Your task to perform on an android device: Is it going to rain today? Image 0: 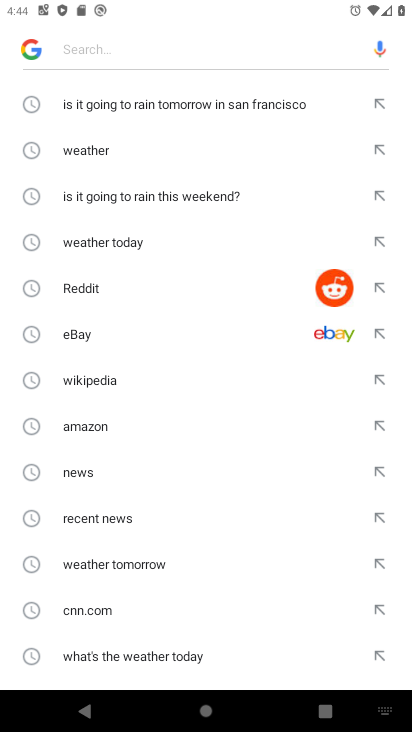
Step 0: press home button
Your task to perform on an android device: Is it going to rain today? Image 1: 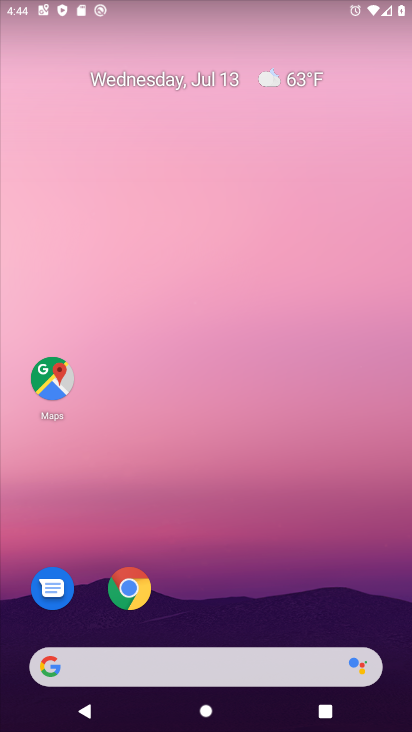
Step 1: drag from (187, 672) to (193, 199)
Your task to perform on an android device: Is it going to rain today? Image 2: 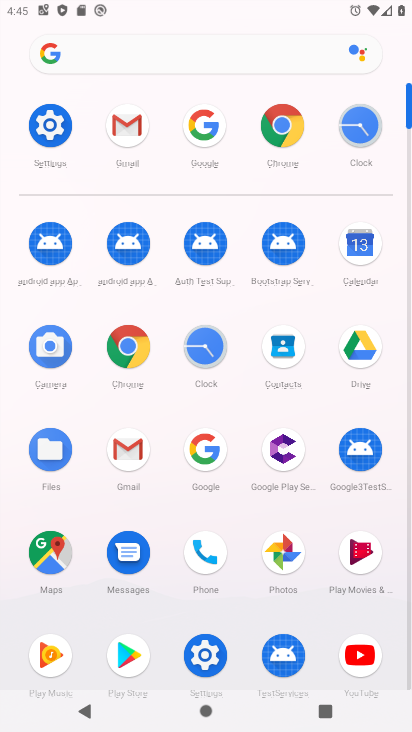
Step 2: click (198, 125)
Your task to perform on an android device: Is it going to rain today? Image 3: 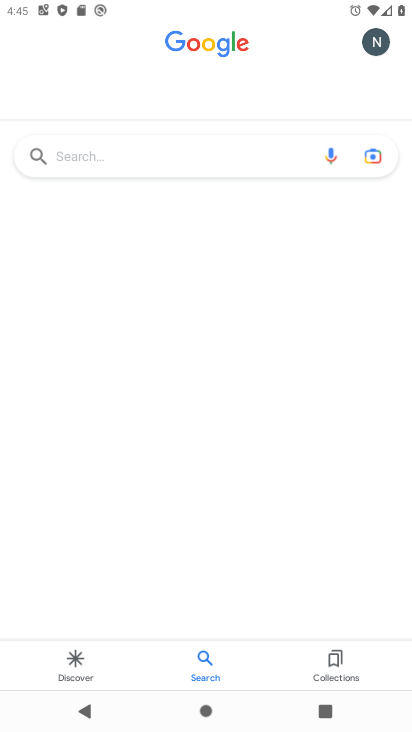
Step 3: click (183, 150)
Your task to perform on an android device: Is it going to rain today? Image 4: 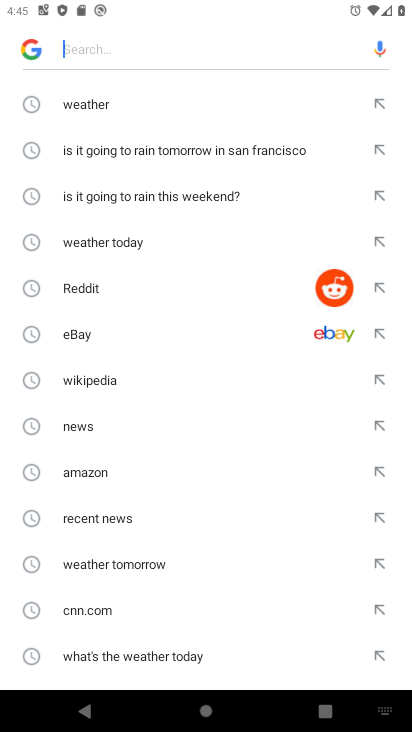
Step 4: type "Is it going to rain today?"
Your task to perform on an android device: Is it going to rain today? Image 5: 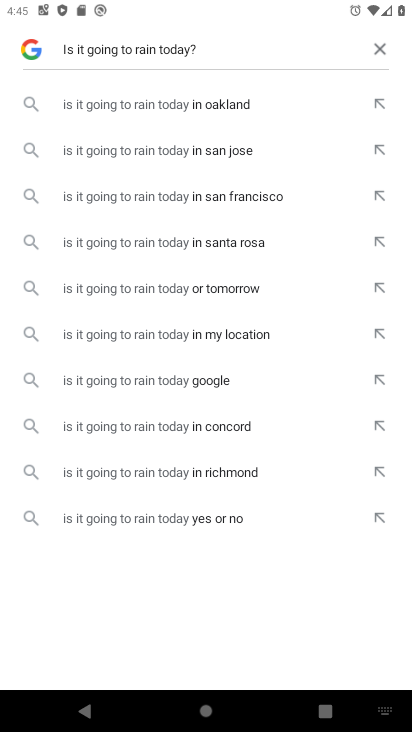
Step 5: click (227, 154)
Your task to perform on an android device: Is it going to rain today? Image 6: 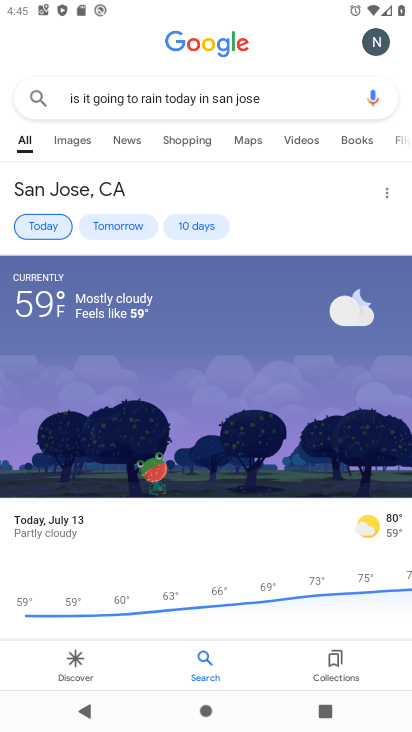
Step 6: task complete